Your task to perform on an android device: Add usb-b to the cart on costco.com Image 0: 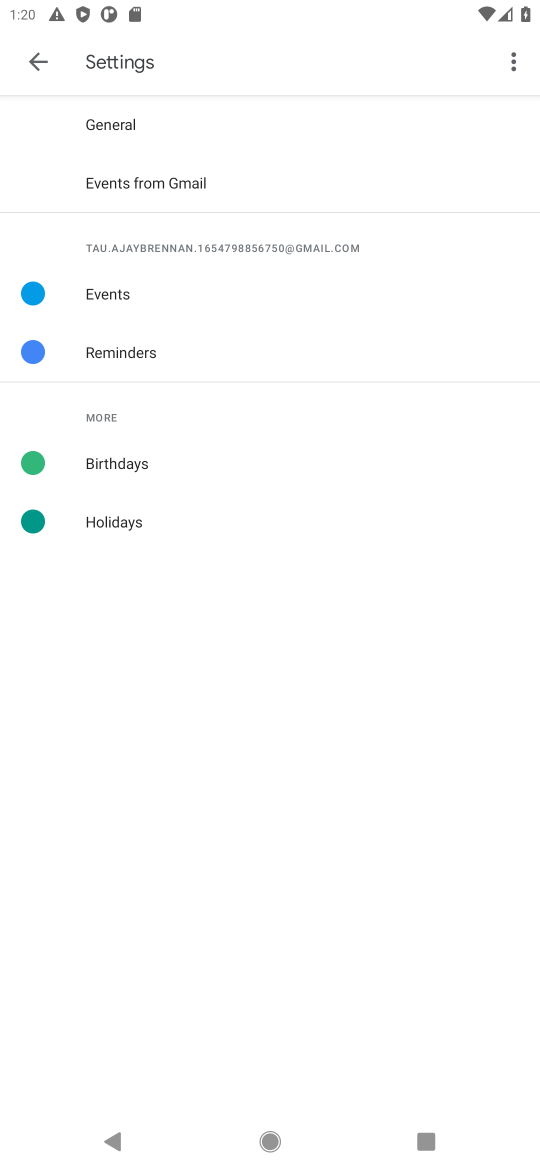
Step 0: press home button
Your task to perform on an android device: Add usb-b to the cart on costco.com Image 1: 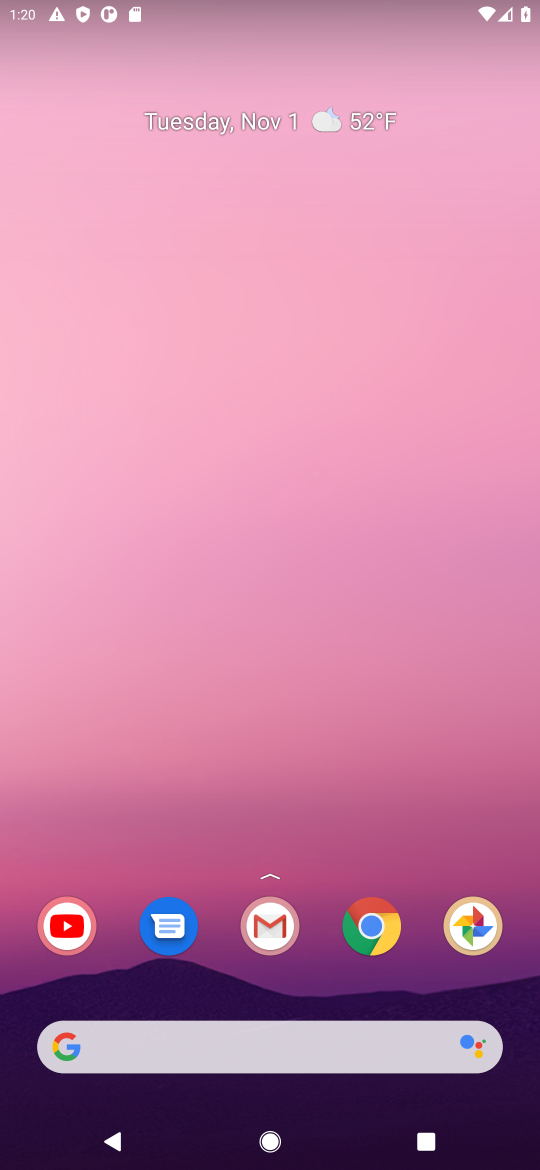
Step 1: click (372, 933)
Your task to perform on an android device: Add usb-b to the cart on costco.com Image 2: 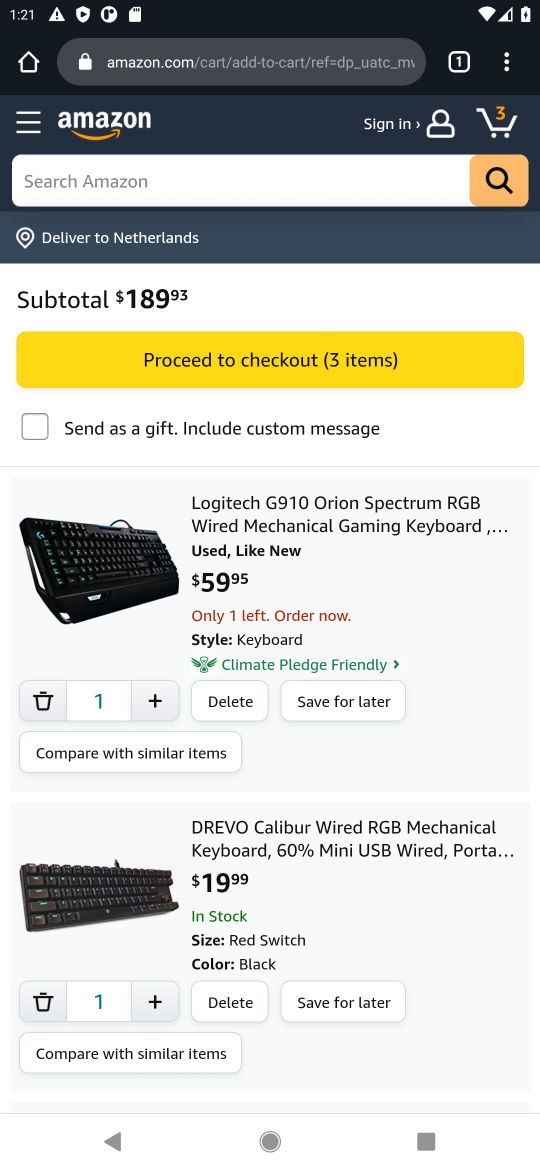
Step 2: click (202, 67)
Your task to perform on an android device: Add usb-b to the cart on costco.com Image 3: 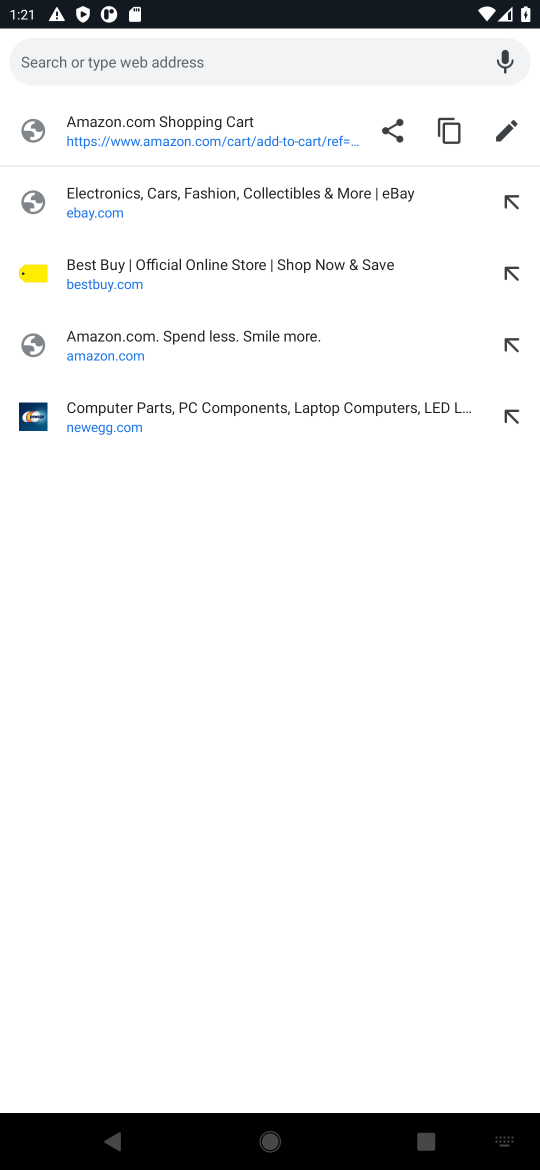
Step 3: type "costco.com"
Your task to perform on an android device: Add usb-b to the cart on costco.com Image 4: 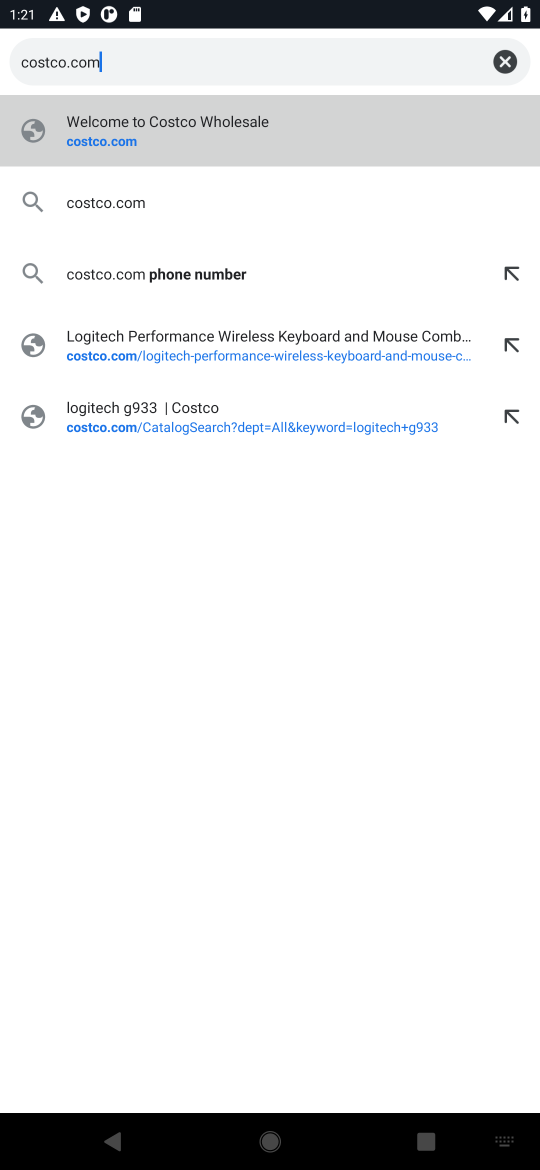
Step 4: press enter
Your task to perform on an android device: Add usb-b to the cart on costco.com Image 5: 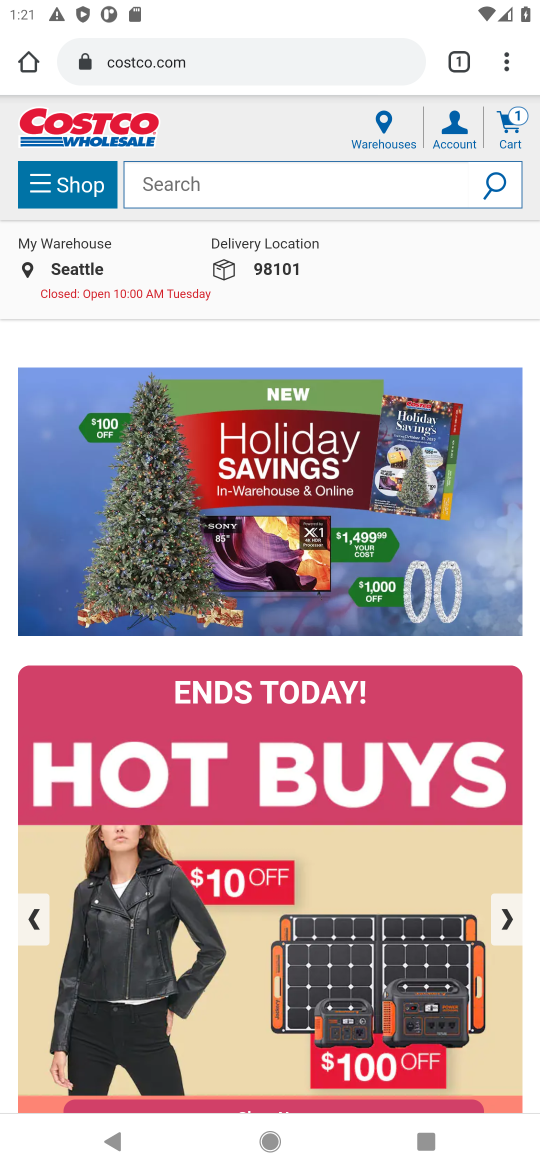
Step 5: click (201, 177)
Your task to perform on an android device: Add usb-b to the cart on costco.com Image 6: 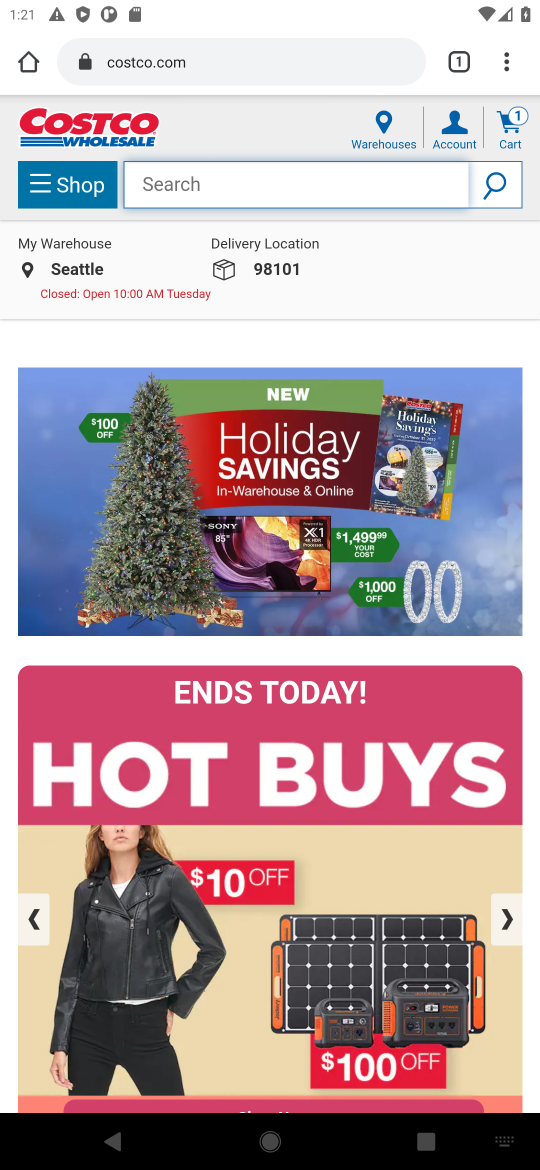
Step 6: type "usb-b"
Your task to perform on an android device: Add usb-b to the cart on costco.com Image 7: 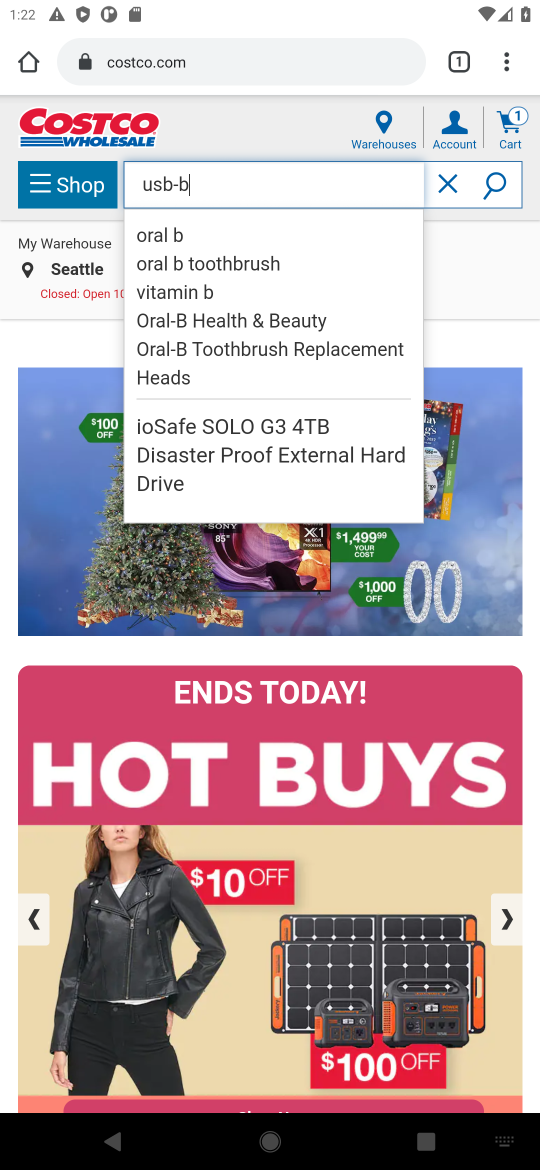
Step 7: press enter
Your task to perform on an android device: Add usb-b to the cart on costco.com Image 8: 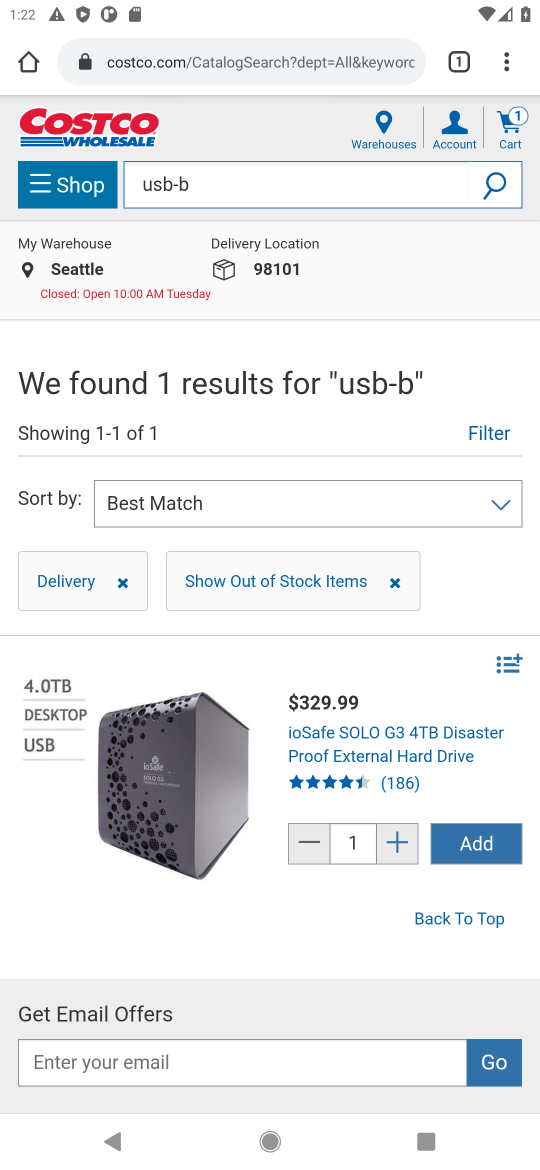
Step 8: task complete